Your task to perform on an android device: turn off data saver in the chrome app Image 0: 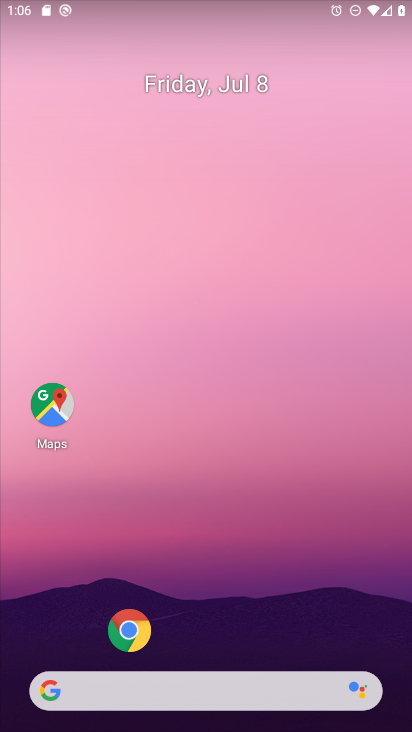
Step 0: drag from (248, 696) to (156, 197)
Your task to perform on an android device: turn off data saver in the chrome app Image 1: 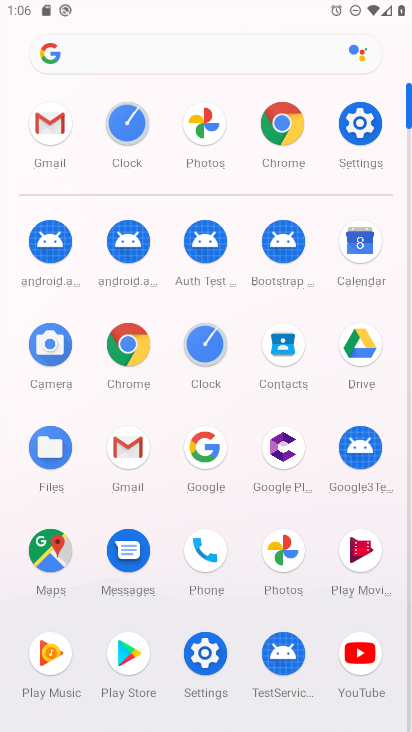
Step 1: click (116, 354)
Your task to perform on an android device: turn off data saver in the chrome app Image 2: 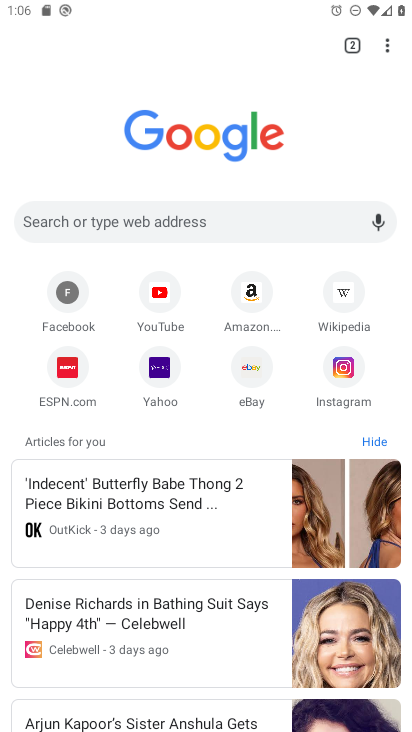
Step 2: drag from (385, 43) to (239, 373)
Your task to perform on an android device: turn off data saver in the chrome app Image 3: 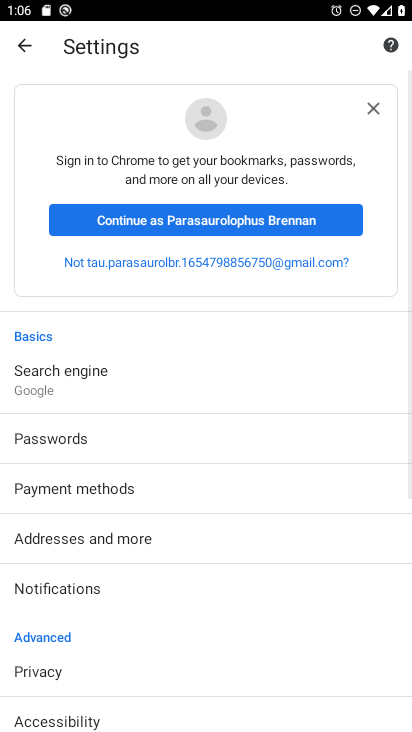
Step 3: drag from (147, 566) to (129, 175)
Your task to perform on an android device: turn off data saver in the chrome app Image 4: 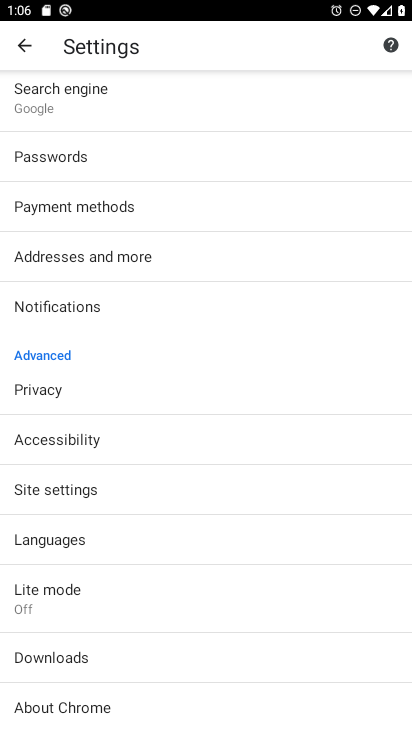
Step 4: click (106, 488)
Your task to perform on an android device: turn off data saver in the chrome app Image 5: 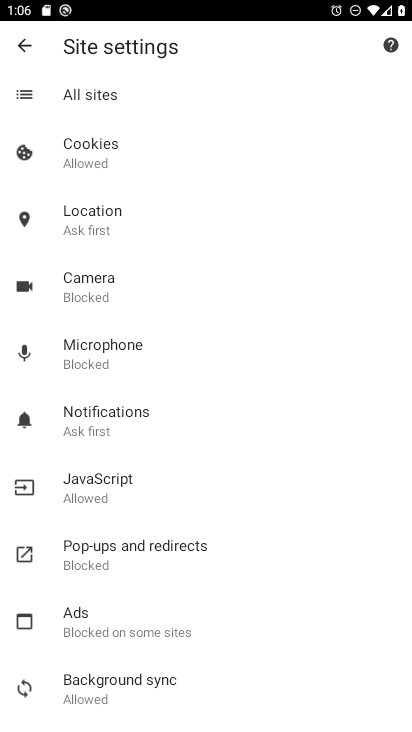
Step 5: press back button
Your task to perform on an android device: turn off data saver in the chrome app Image 6: 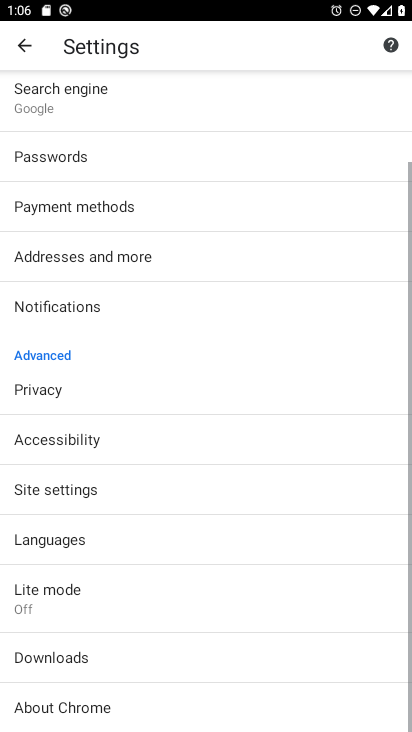
Step 6: click (111, 606)
Your task to perform on an android device: turn off data saver in the chrome app Image 7: 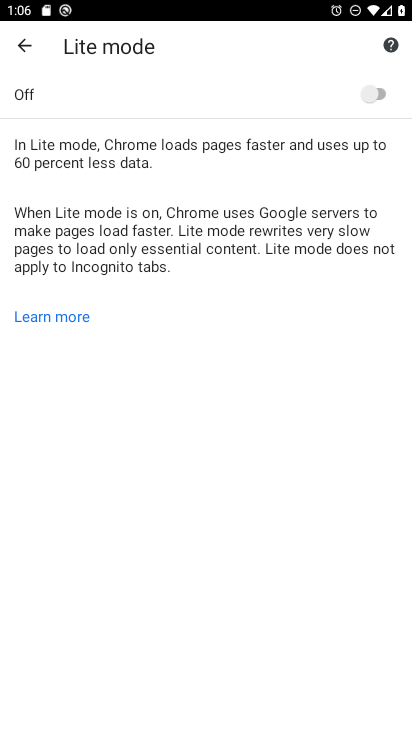
Step 7: click (375, 94)
Your task to perform on an android device: turn off data saver in the chrome app Image 8: 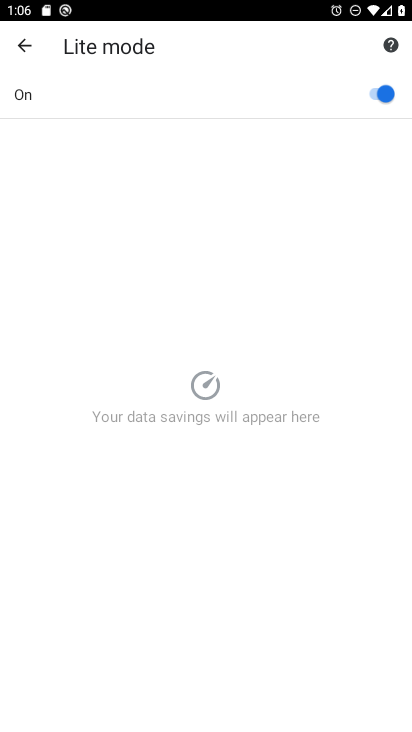
Step 8: task complete